Your task to perform on an android device: set default search engine in the chrome app Image 0: 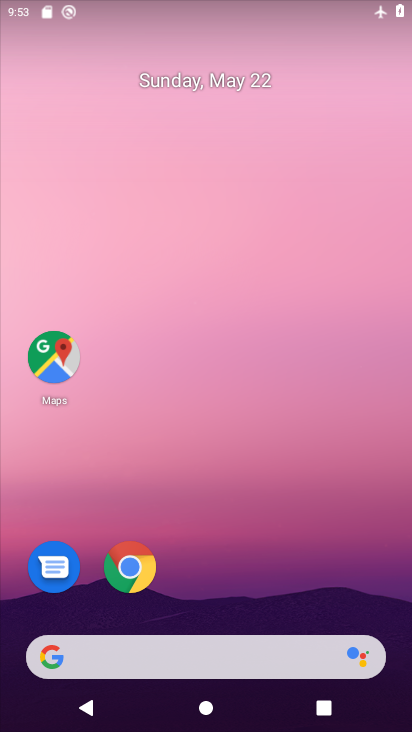
Step 0: press home button
Your task to perform on an android device: set default search engine in the chrome app Image 1: 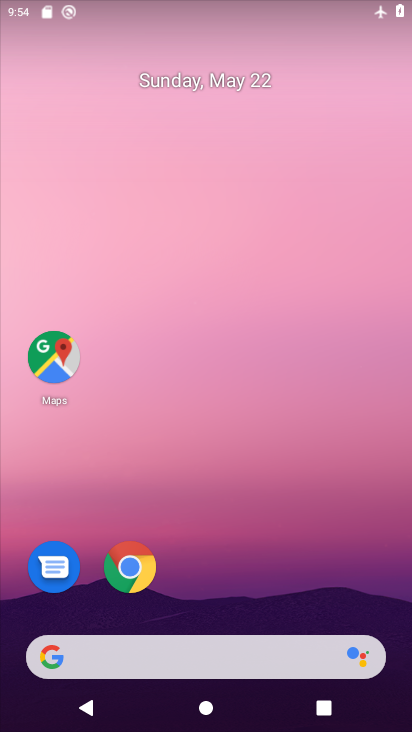
Step 1: click (128, 560)
Your task to perform on an android device: set default search engine in the chrome app Image 2: 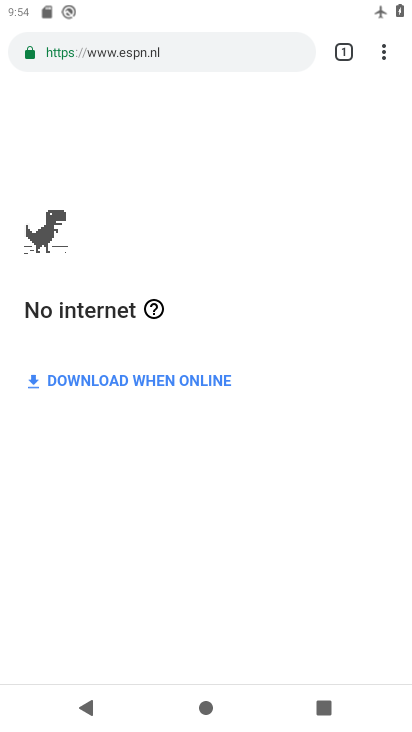
Step 2: click (385, 47)
Your task to perform on an android device: set default search engine in the chrome app Image 3: 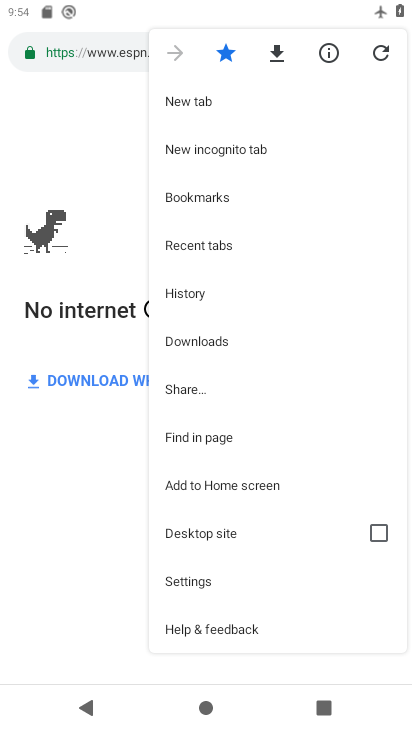
Step 3: click (219, 579)
Your task to perform on an android device: set default search engine in the chrome app Image 4: 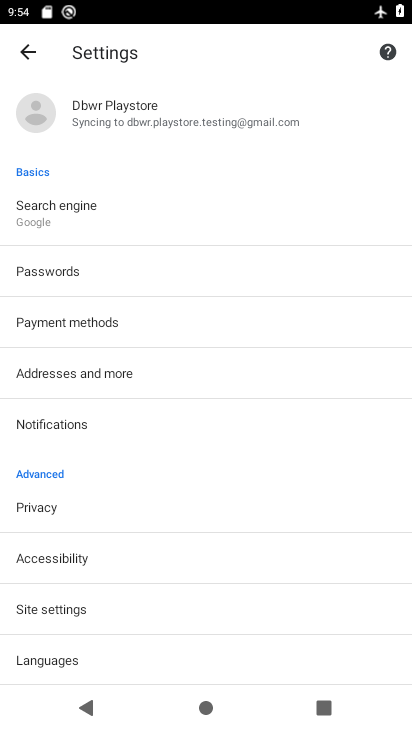
Step 4: click (119, 213)
Your task to perform on an android device: set default search engine in the chrome app Image 5: 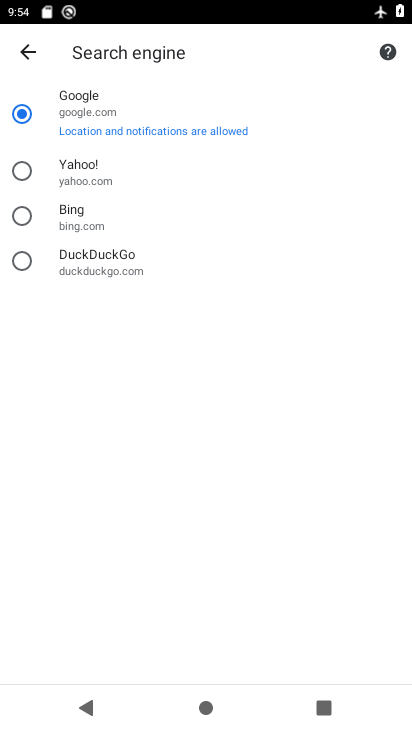
Step 5: click (21, 168)
Your task to perform on an android device: set default search engine in the chrome app Image 6: 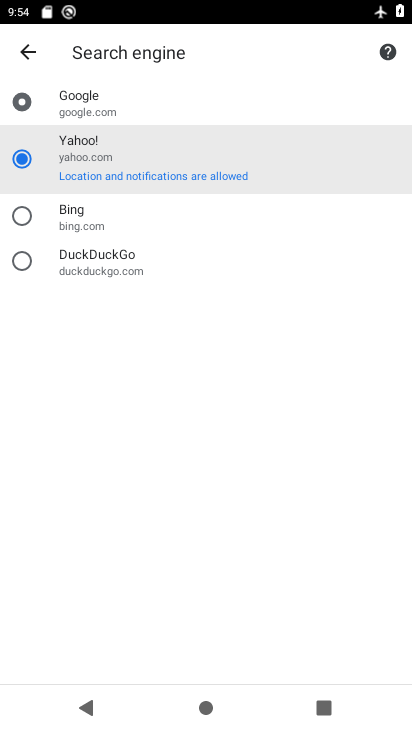
Step 6: task complete